Your task to perform on an android device: check the backup settings in the google photos Image 0: 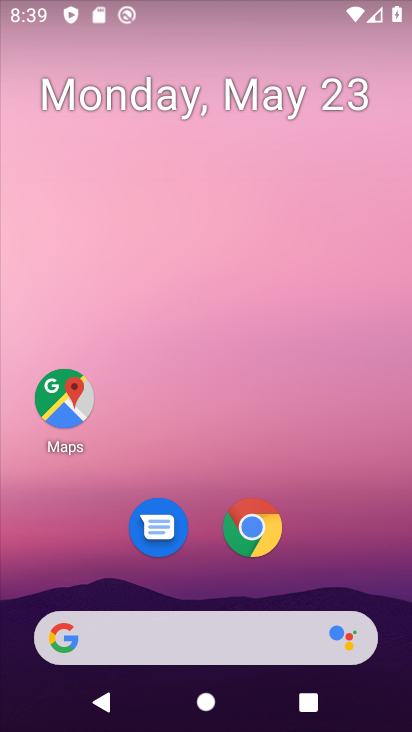
Step 0: drag from (344, 534) to (277, 68)
Your task to perform on an android device: check the backup settings in the google photos Image 1: 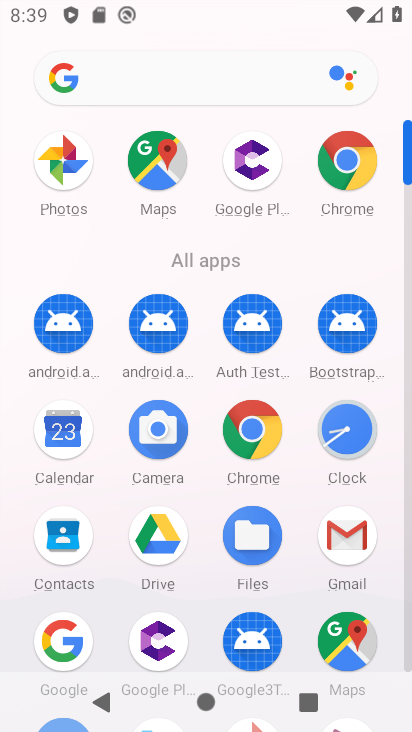
Step 1: drag from (25, 590) to (32, 245)
Your task to perform on an android device: check the backup settings in the google photos Image 2: 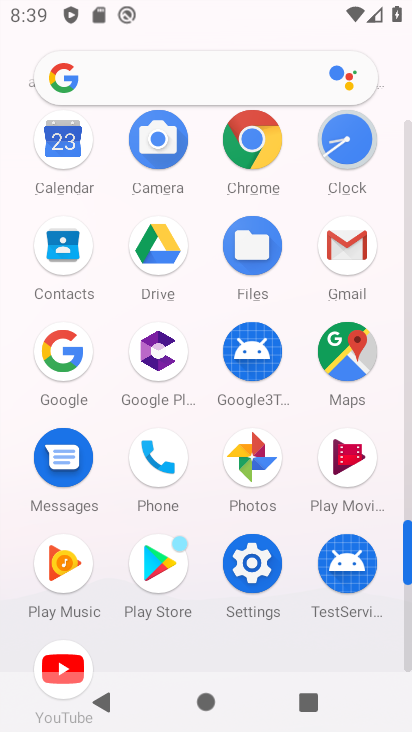
Step 2: click (254, 455)
Your task to perform on an android device: check the backup settings in the google photos Image 3: 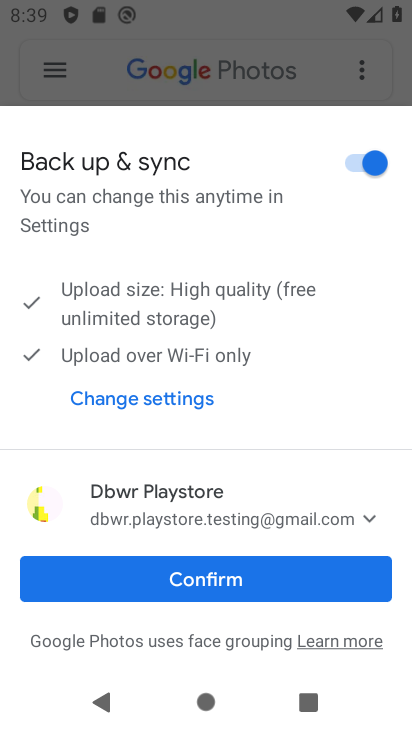
Step 3: click (231, 571)
Your task to perform on an android device: check the backup settings in the google photos Image 4: 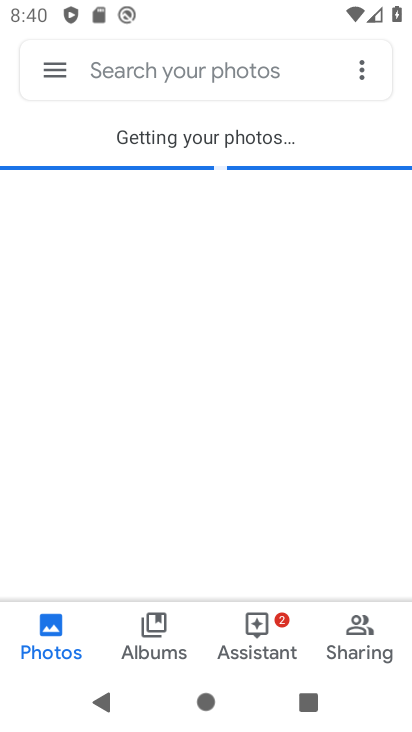
Step 4: click (65, 81)
Your task to perform on an android device: check the backup settings in the google photos Image 5: 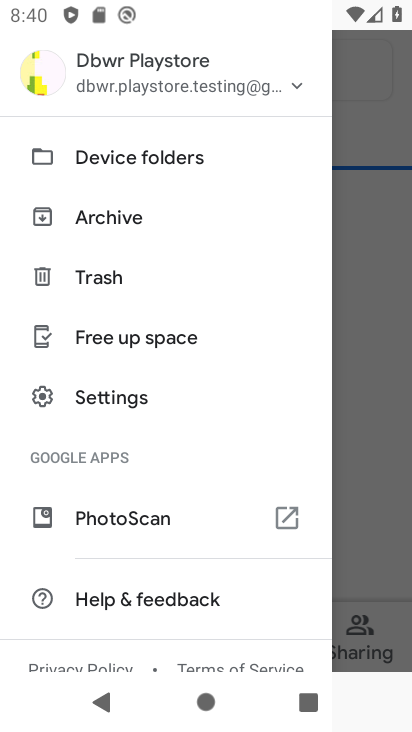
Step 5: click (136, 399)
Your task to perform on an android device: check the backup settings in the google photos Image 6: 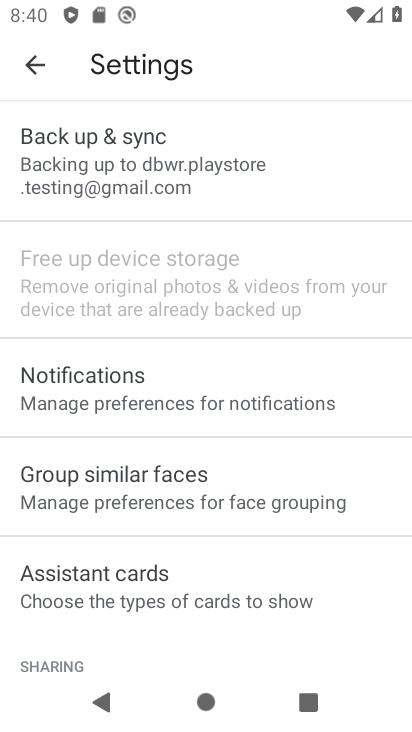
Step 6: click (155, 159)
Your task to perform on an android device: check the backup settings in the google photos Image 7: 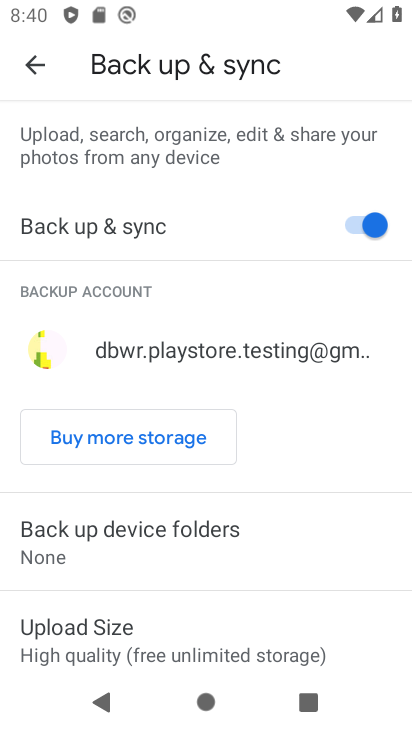
Step 7: task complete